Your task to perform on an android device: empty trash in the gmail app Image 0: 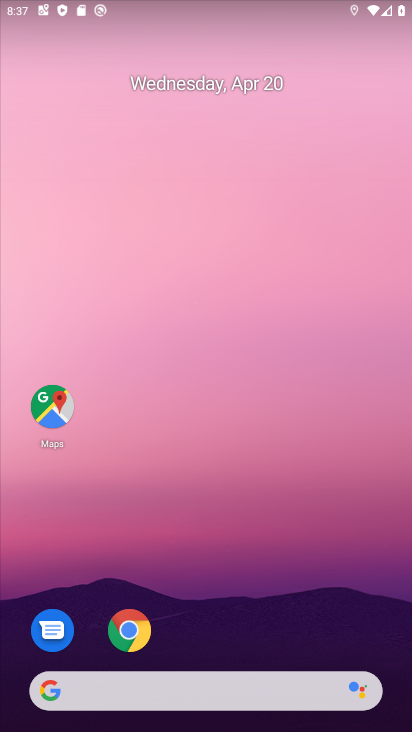
Step 0: click (128, 620)
Your task to perform on an android device: empty trash in the gmail app Image 1: 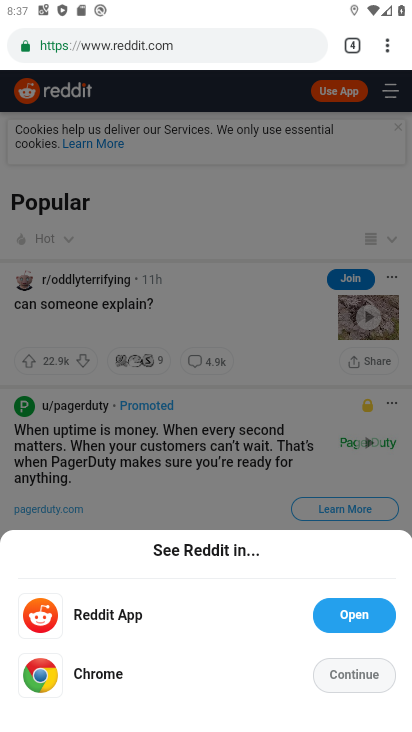
Step 1: press home button
Your task to perform on an android device: empty trash in the gmail app Image 2: 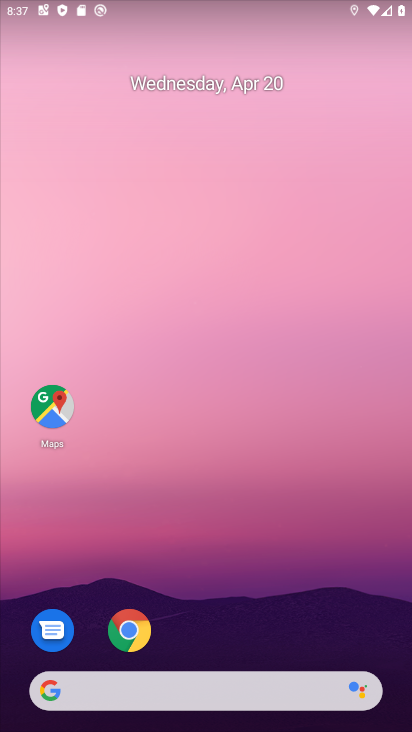
Step 2: drag from (204, 360) to (411, 505)
Your task to perform on an android device: empty trash in the gmail app Image 3: 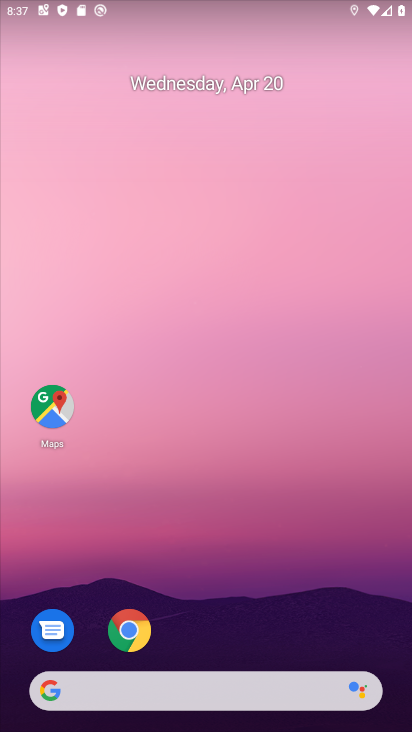
Step 3: drag from (194, 651) to (339, 15)
Your task to perform on an android device: empty trash in the gmail app Image 4: 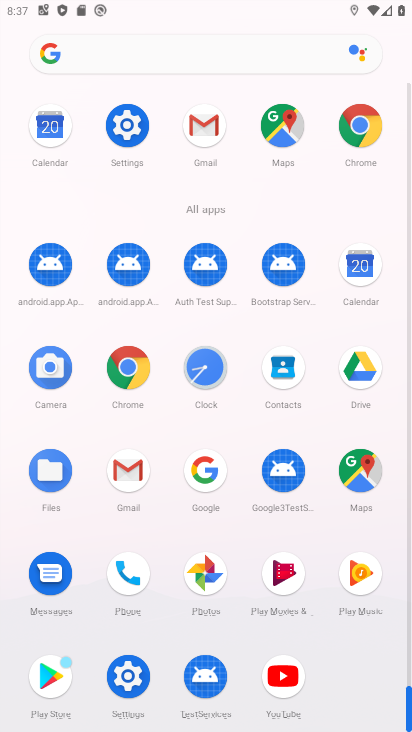
Step 4: click (126, 469)
Your task to perform on an android device: empty trash in the gmail app Image 5: 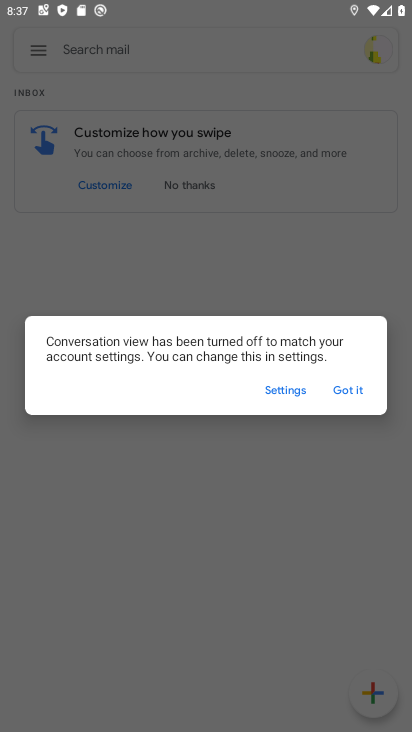
Step 5: click (362, 386)
Your task to perform on an android device: empty trash in the gmail app Image 6: 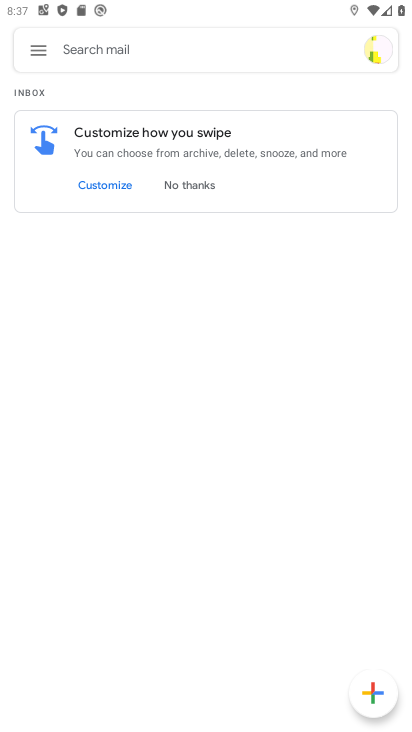
Step 6: click (31, 44)
Your task to perform on an android device: empty trash in the gmail app Image 7: 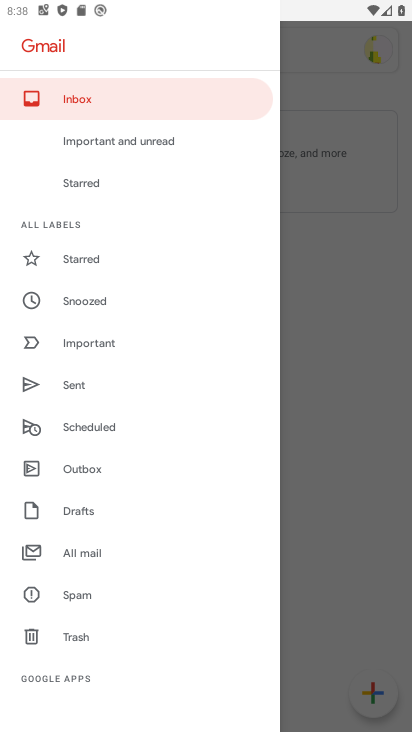
Step 7: click (80, 641)
Your task to perform on an android device: empty trash in the gmail app Image 8: 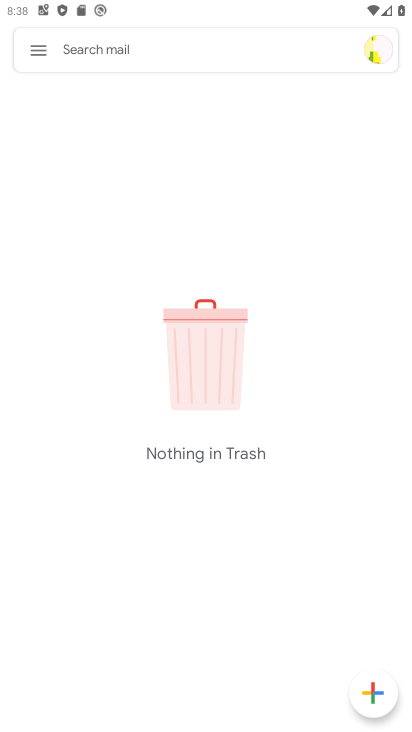
Step 8: task complete